Your task to perform on an android device: What's the weather? Image 0: 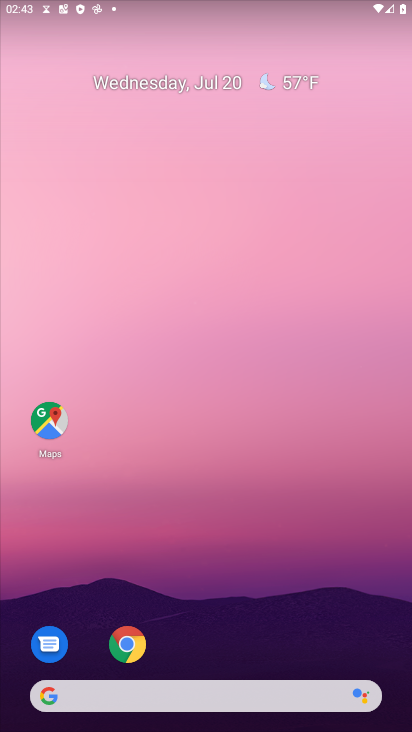
Step 0: press home button
Your task to perform on an android device: What's the weather? Image 1: 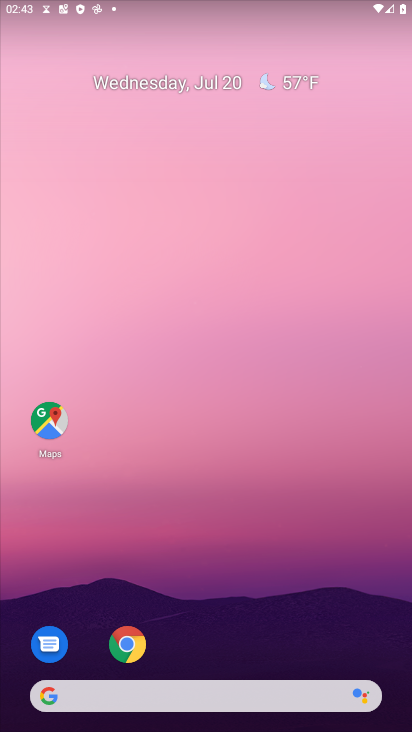
Step 1: click (44, 706)
Your task to perform on an android device: What's the weather? Image 2: 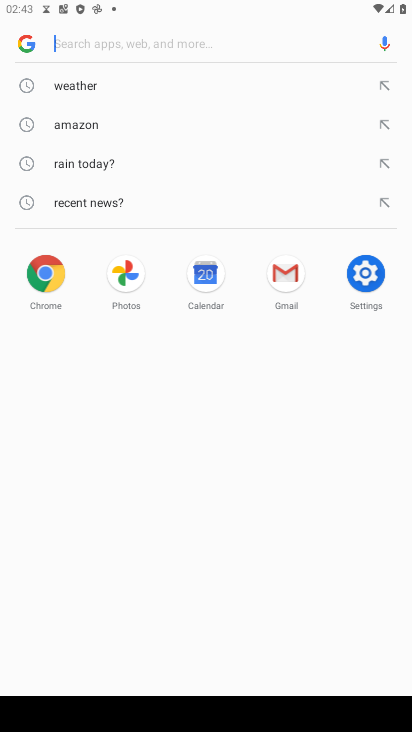
Step 2: click (87, 86)
Your task to perform on an android device: What's the weather? Image 3: 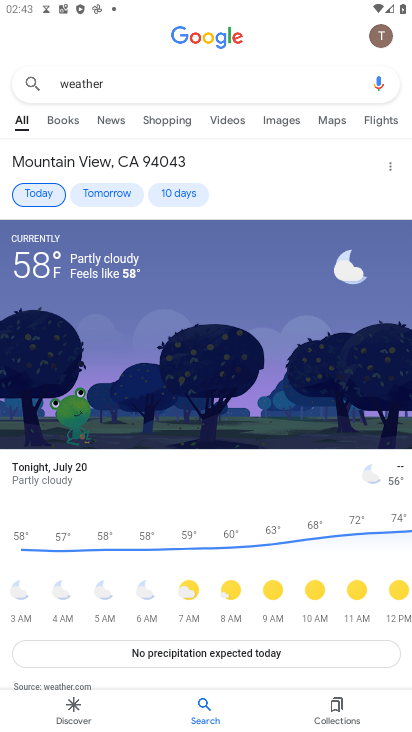
Step 3: task complete